Your task to perform on an android device: Open accessibility settings Image 0: 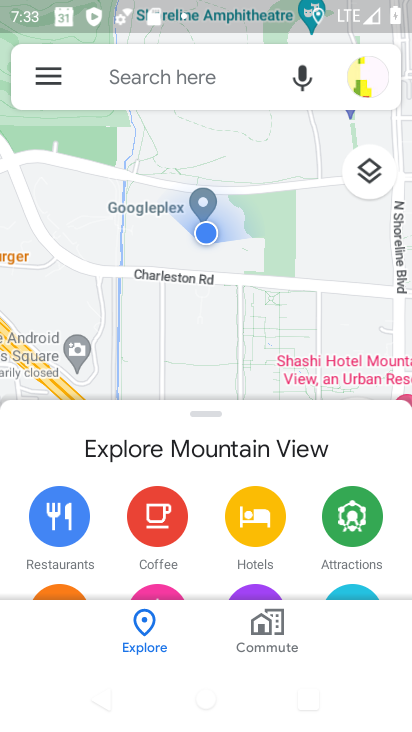
Step 0: press home button
Your task to perform on an android device: Open accessibility settings Image 1: 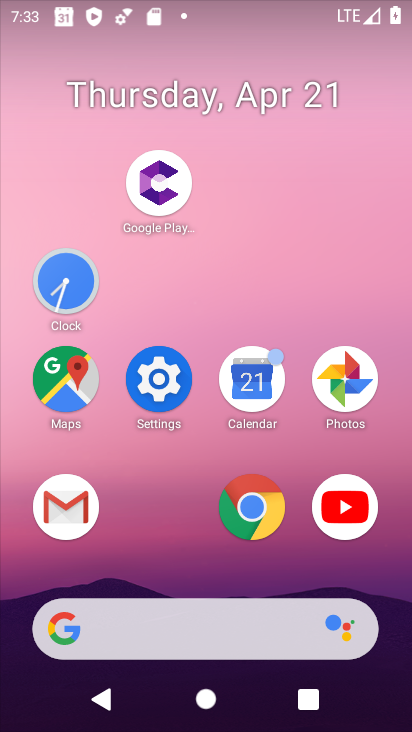
Step 1: click (155, 368)
Your task to perform on an android device: Open accessibility settings Image 2: 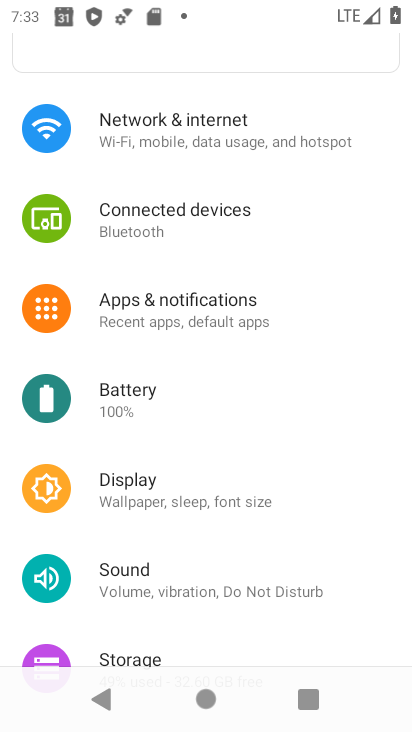
Step 2: drag from (294, 543) to (295, 209)
Your task to perform on an android device: Open accessibility settings Image 3: 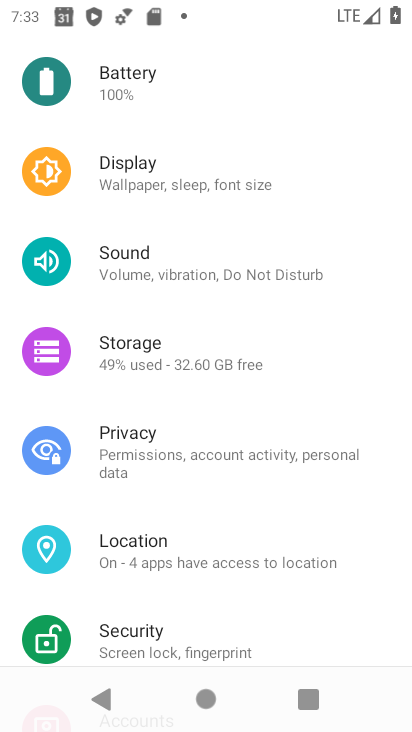
Step 3: drag from (303, 525) to (303, 198)
Your task to perform on an android device: Open accessibility settings Image 4: 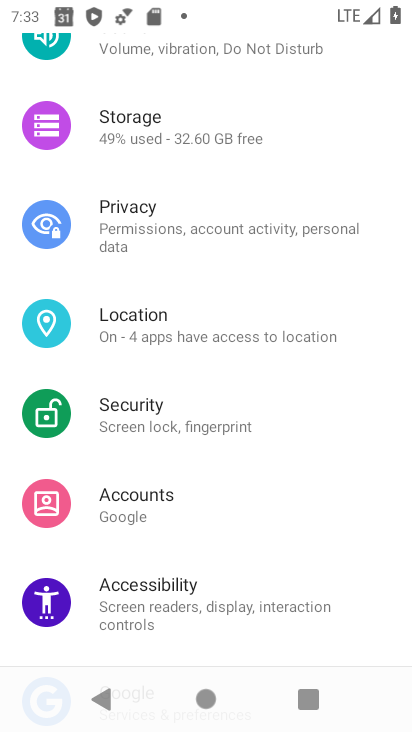
Step 4: click (132, 585)
Your task to perform on an android device: Open accessibility settings Image 5: 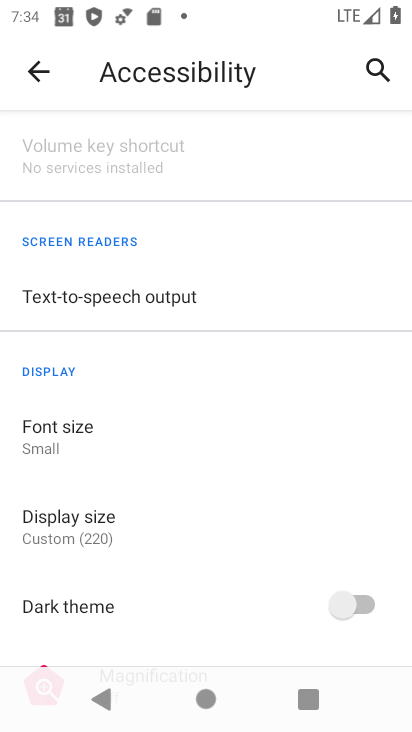
Step 5: task complete